Your task to perform on an android device: add a contact Image 0: 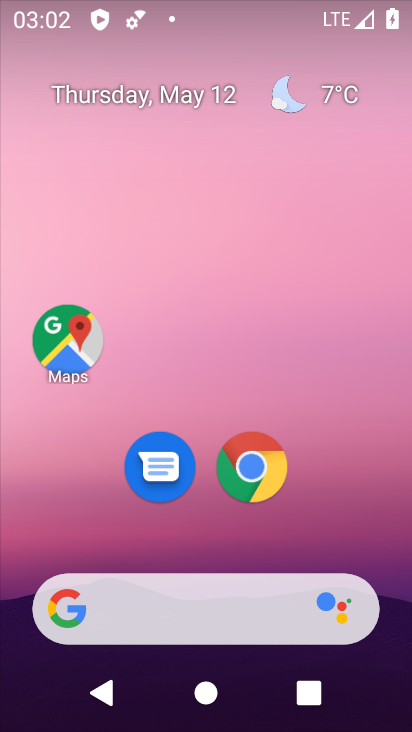
Step 0: drag from (296, 532) to (285, 4)
Your task to perform on an android device: add a contact Image 1: 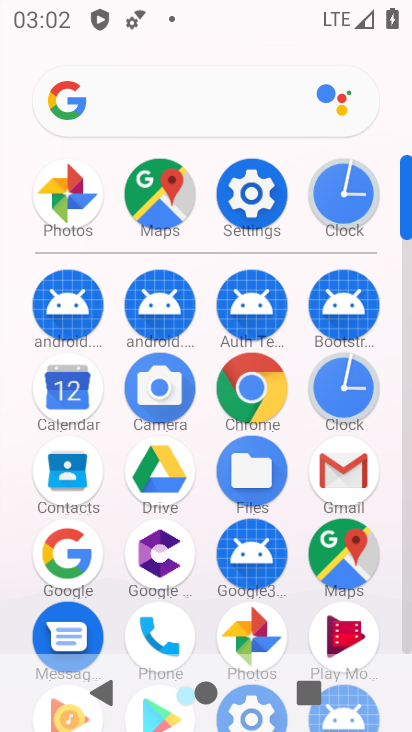
Step 1: click (63, 481)
Your task to perform on an android device: add a contact Image 2: 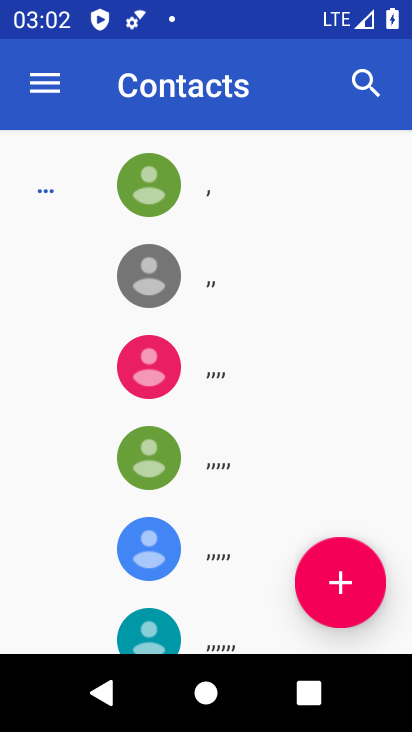
Step 2: click (339, 557)
Your task to perform on an android device: add a contact Image 3: 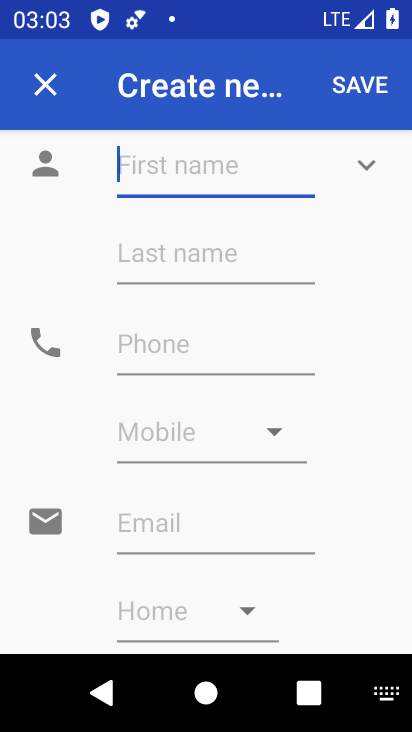
Step 3: type "po"
Your task to perform on an android device: add a contact Image 4: 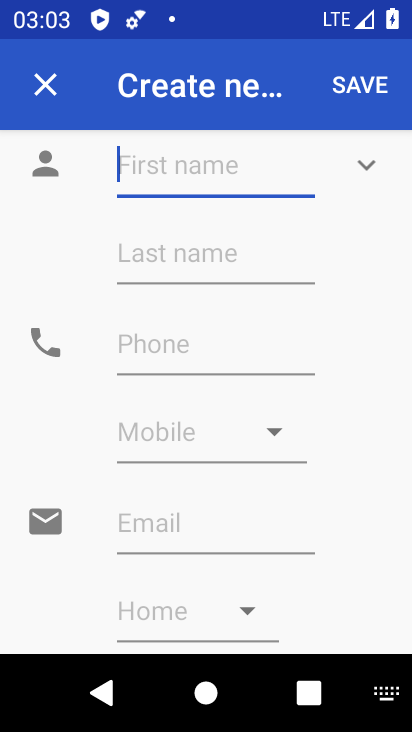
Step 4: click (157, 361)
Your task to perform on an android device: add a contact Image 5: 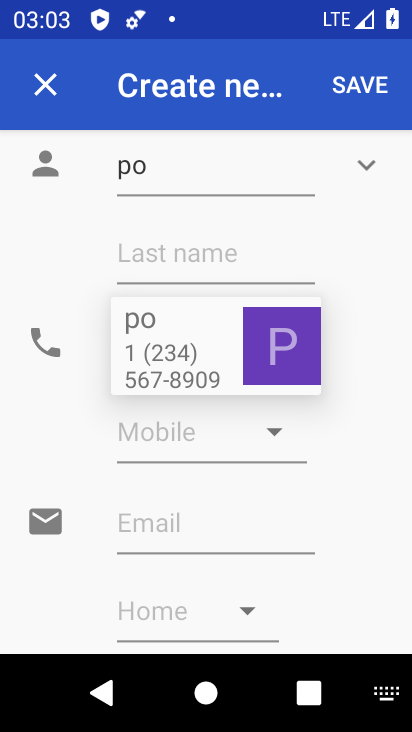
Step 5: type "9999888898"
Your task to perform on an android device: add a contact Image 6: 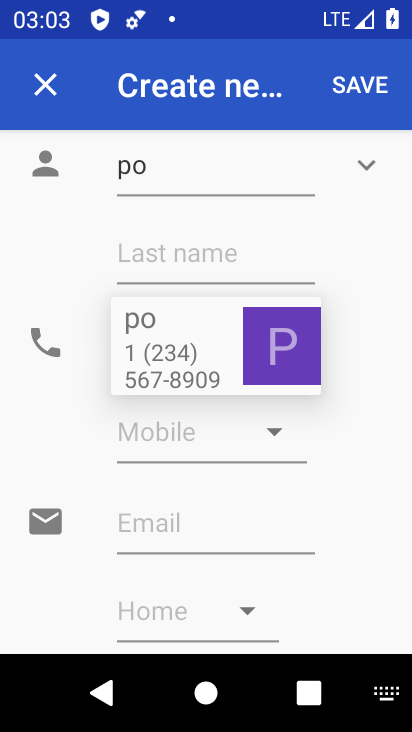
Step 6: click (380, 91)
Your task to perform on an android device: add a contact Image 7: 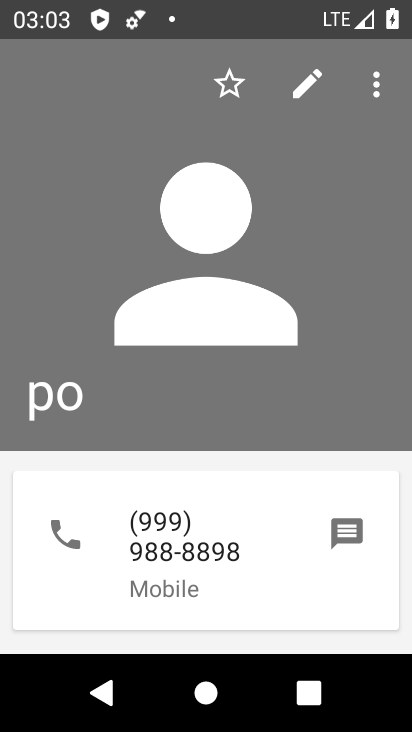
Step 7: task complete